Your task to perform on an android device: set an alarm Image 0: 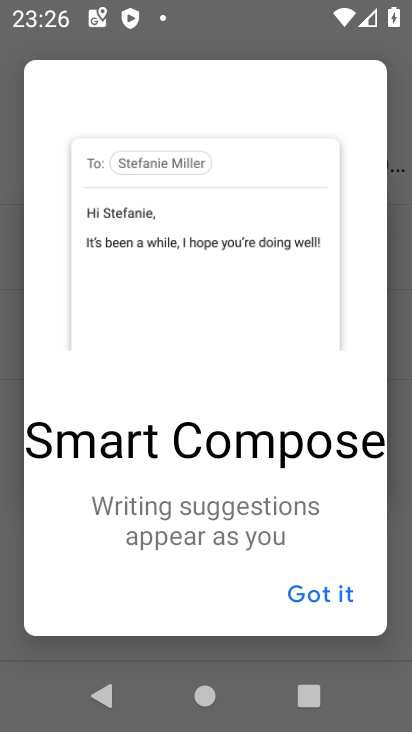
Step 0: press home button
Your task to perform on an android device: set an alarm Image 1: 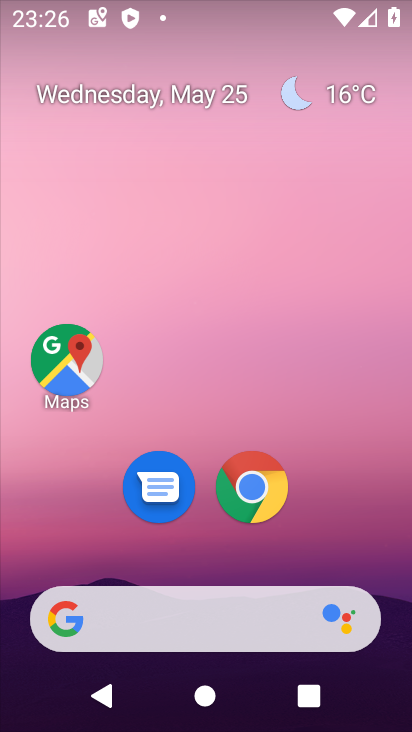
Step 1: drag from (148, 673) to (242, 1)
Your task to perform on an android device: set an alarm Image 2: 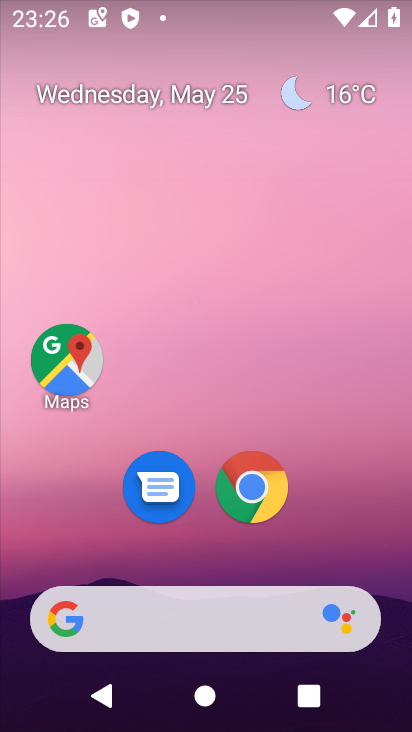
Step 2: drag from (248, 512) to (260, 86)
Your task to perform on an android device: set an alarm Image 3: 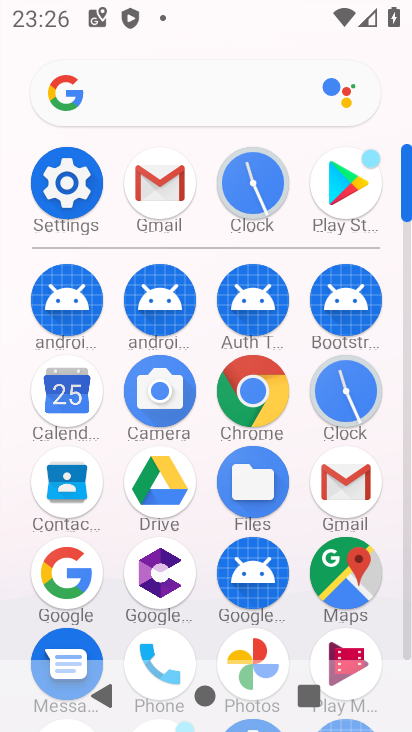
Step 3: click (352, 399)
Your task to perform on an android device: set an alarm Image 4: 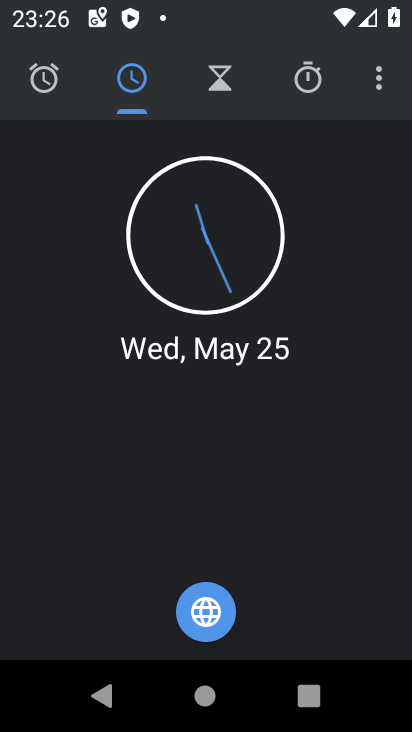
Step 4: click (47, 73)
Your task to perform on an android device: set an alarm Image 5: 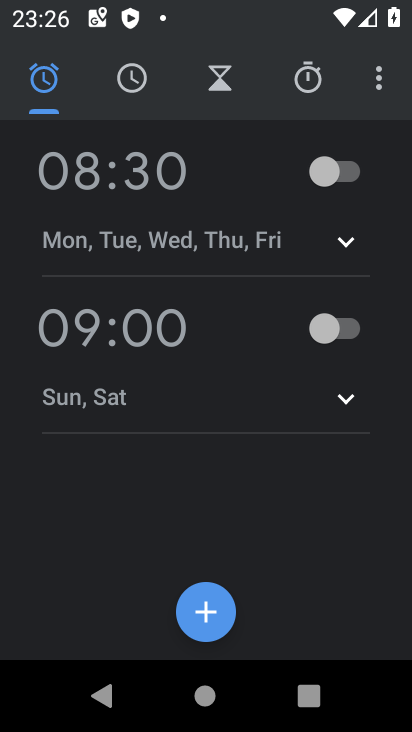
Step 5: click (187, 599)
Your task to perform on an android device: set an alarm Image 6: 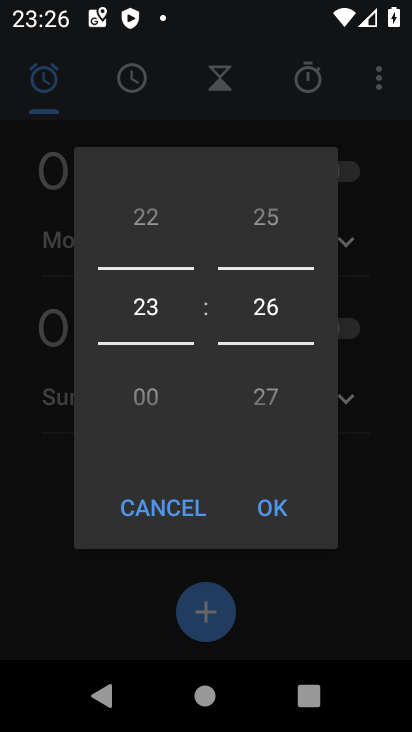
Step 6: click (286, 508)
Your task to perform on an android device: set an alarm Image 7: 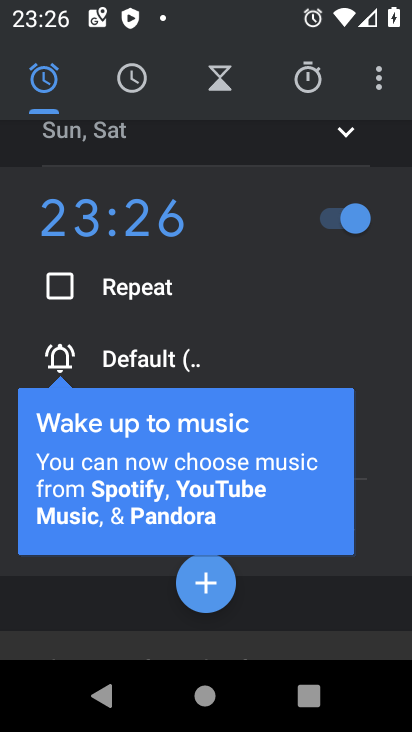
Step 7: task complete